Your task to perform on an android device: Open notification settings Image 0: 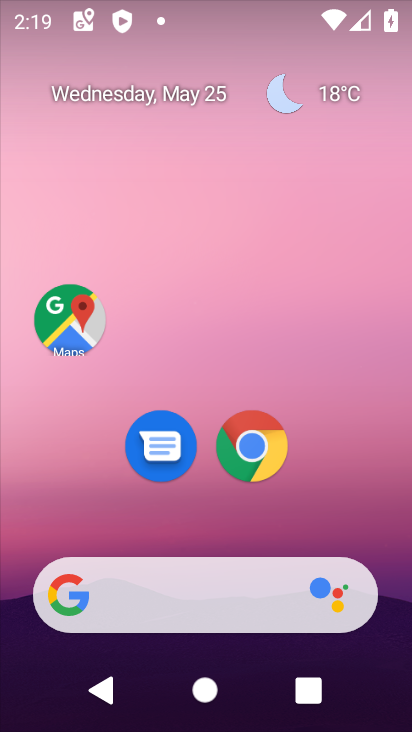
Step 0: drag from (243, 576) to (250, 55)
Your task to perform on an android device: Open notification settings Image 1: 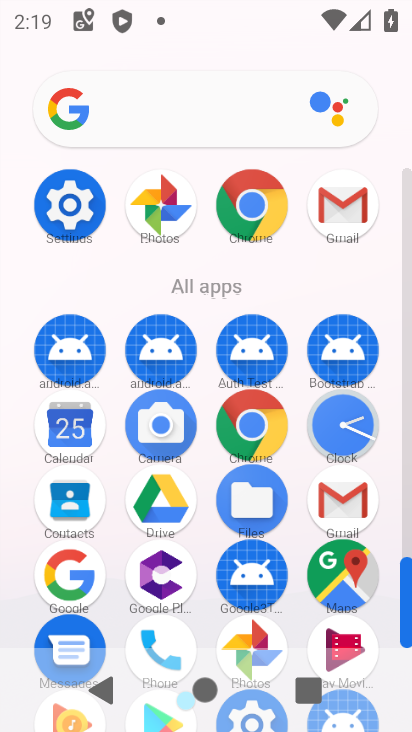
Step 1: click (76, 193)
Your task to perform on an android device: Open notification settings Image 2: 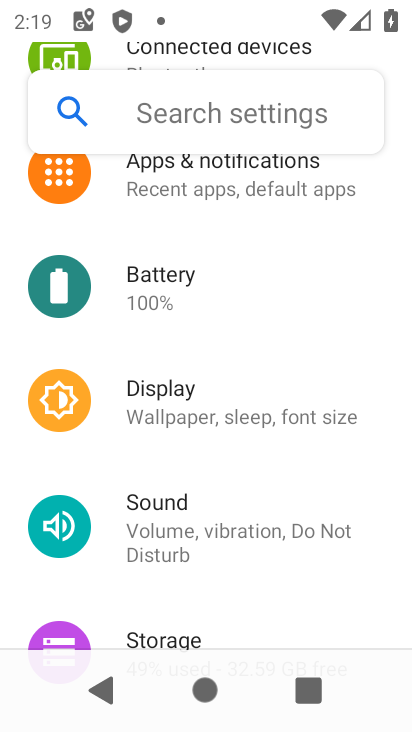
Step 2: click (213, 182)
Your task to perform on an android device: Open notification settings Image 3: 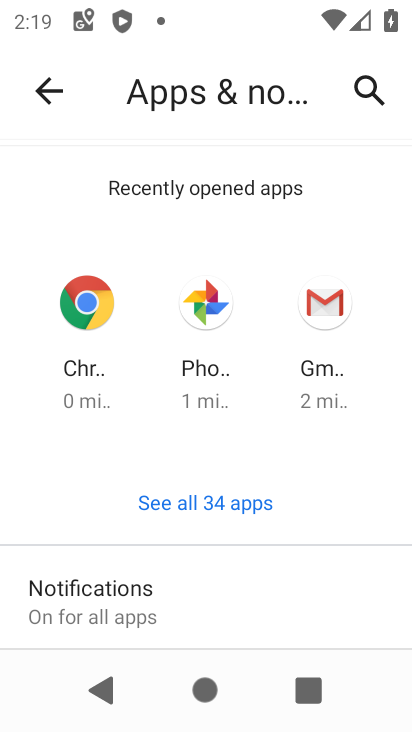
Step 3: task complete